Your task to perform on an android device: When is my next meeting? Image 0: 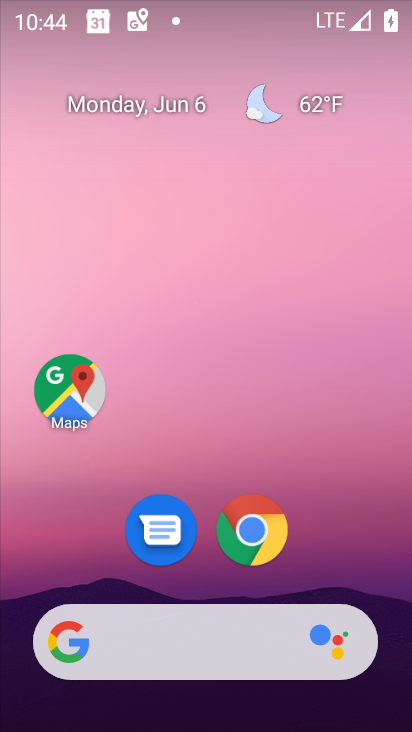
Step 0: drag from (316, 548) to (288, 98)
Your task to perform on an android device: When is my next meeting? Image 1: 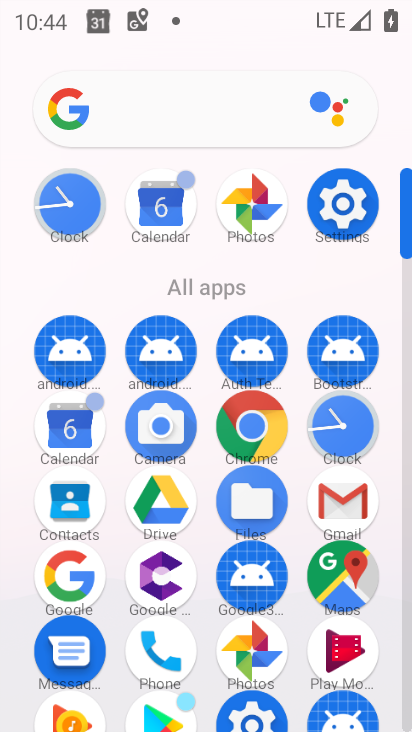
Step 1: click (65, 431)
Your task to perform on an android device: When is my next meeting? Image 2: 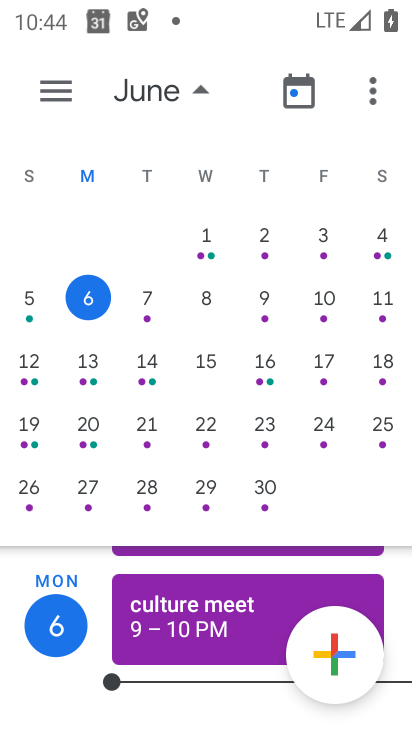
Step 2: click (255, 301)
Your task to perform on an android device: When is my next meeting? Image 3: 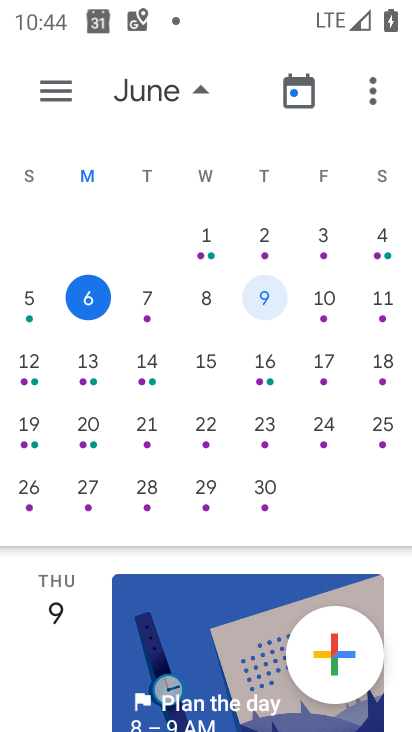
Step 3: task complete